Your task to perform on an android device: Clear all items from cart on costco. Add razer blade to the cart on costco Image 0: 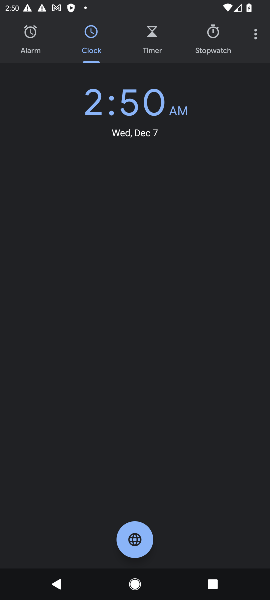
Step 0: press home button
Your task to perform on an android device: Clear all items from cart on costco. Add razer blade to the cart on costco Image 1: 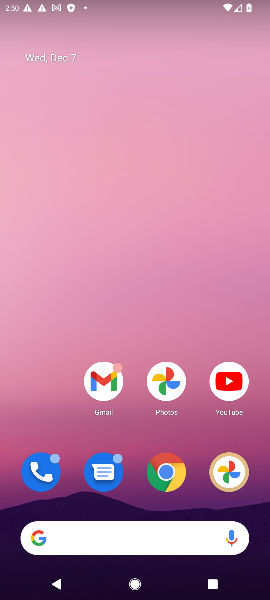
Step 1: drag from (103, 532) to (106, 187)
Your task to perform on an android device: Clear all items from cart on costco. Add razer blade to the cart on costco Image 2: 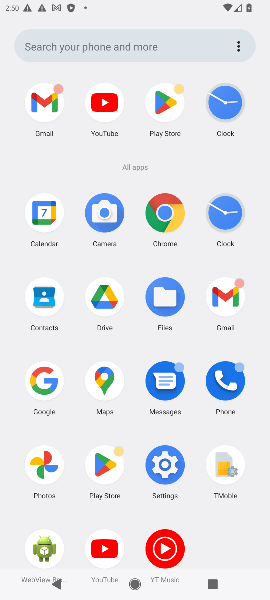
Step 2: click (41, 382)
Your task to perform on an android device: Clear all items from cart on costco. Add razer blade to the cart on costco Image 3: 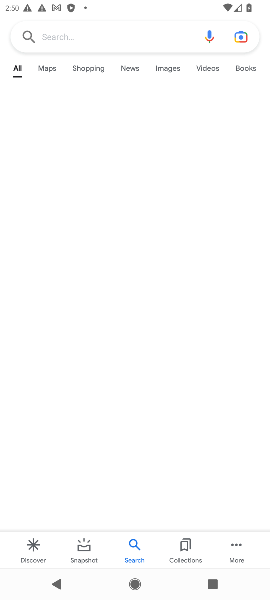
Step 3: click (64, 42)
Your task to perform on an android device: Clear all items from cart on costco. Add razer blade to the cart on costco Image 4: 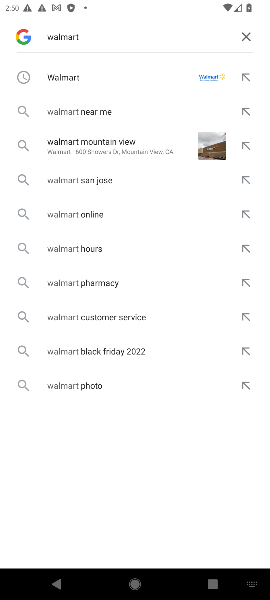
Step 4: click (247, 37)
Your task to perform on an android device: Clear all items from cart on costco. Add razer blade to the cart on costco Image 5: 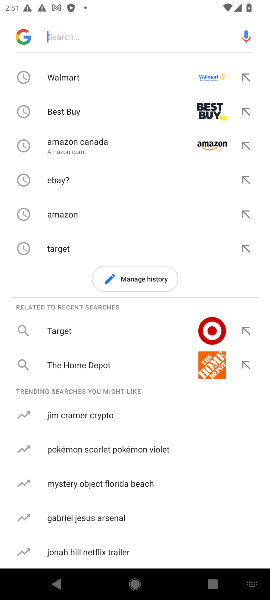
Step 5: type "costco"
Your task to perform on an android device: Clear all items from cart on costco. Add razer blade to the cart on costco Image 6: 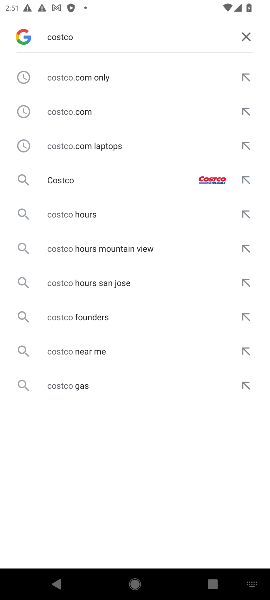
Step 6: click (74, 112)
Your task to perform on an android device: Clear all items from cart on costco. Add razer blade to the cart on costco Image 7: 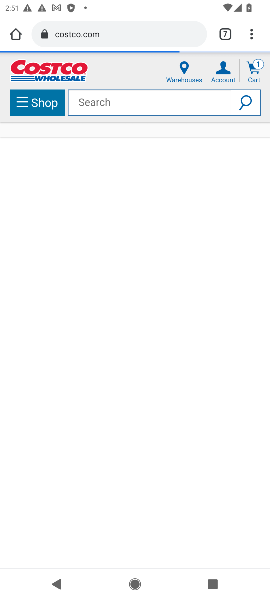
Step 7: click (249, 71)
Your task to perform on an android device: Clear all items from cart on costco. Add razer blade to the cart on costco Image 8: 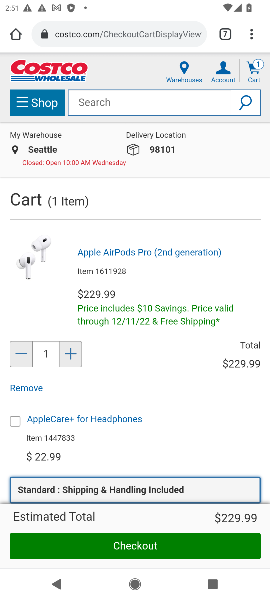
Step 8: click (19, 351)
Your task to perform on an android device: Clear all items from cart on costco. Add razer blade to the cart on costco Image 9: 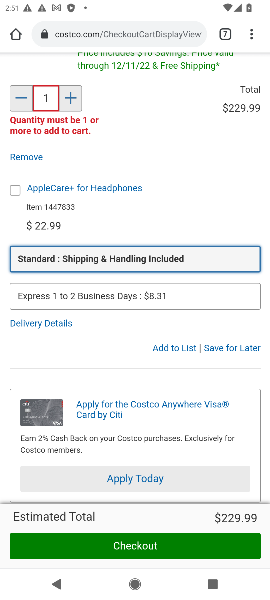
Step 9: click (25, 154)
Your task to perform on an android device: Clear all items from cart on costco. Add razer blade to the cart on costco Image 10: 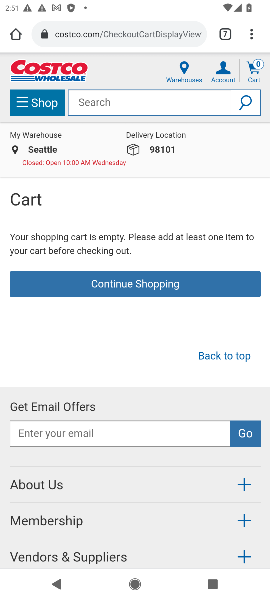
Step 10: click (98, 101)
Your task to perform on an android device: Clear all items from cart on costco. Add razer blade to the cart on costco Image 11: 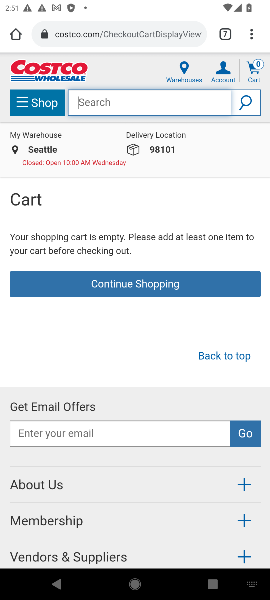
Step 11: type "razer blade"
Your task to perform on an android device: Clear all items from cart on costco. Add razer blade to the cart on costco Image 12: 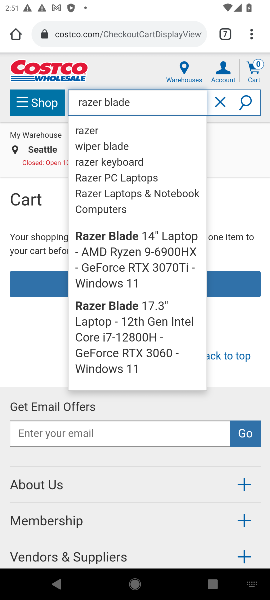
Step 12: click (88, 129)
Your task to perform on an android device: Clear all items from cart on costco. Add razer blade to the cart on costco Image 13: 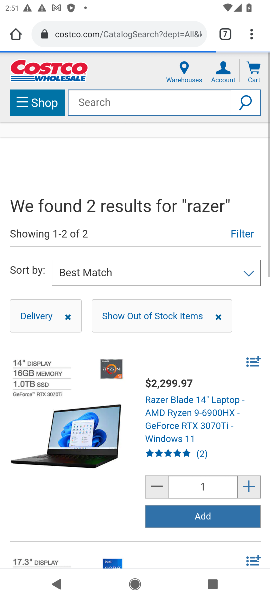
Step 13: click (246, 105)
Your task to perform on an android device: Clear all items from cart on costco. Add razer blade to the cart on costco Image 14: 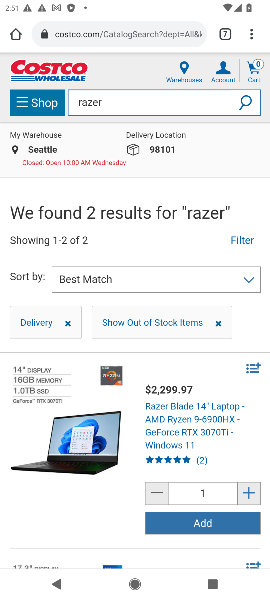
Step 14: drag from (201, 440) to (181, 248)
Your task to perform on an android device: Clear all items from cart on costco. Add razer blade to the cart on costco Image 15: 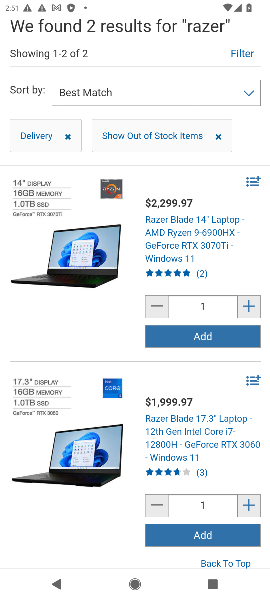
Step 15: click (182, 336)
Your task to perform on an android device: Clear all items from cart on costco. Add razer blade to the cart on costco Image 16: 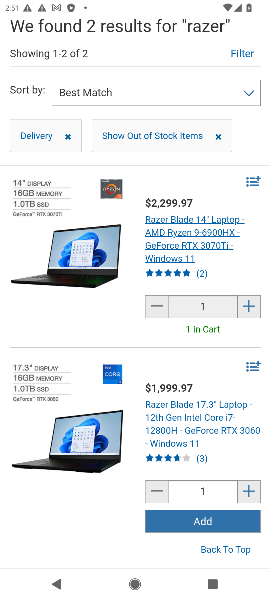
Step 16: task complete